Your task to perform on an android device: empty trash in the gmail app Image 0: 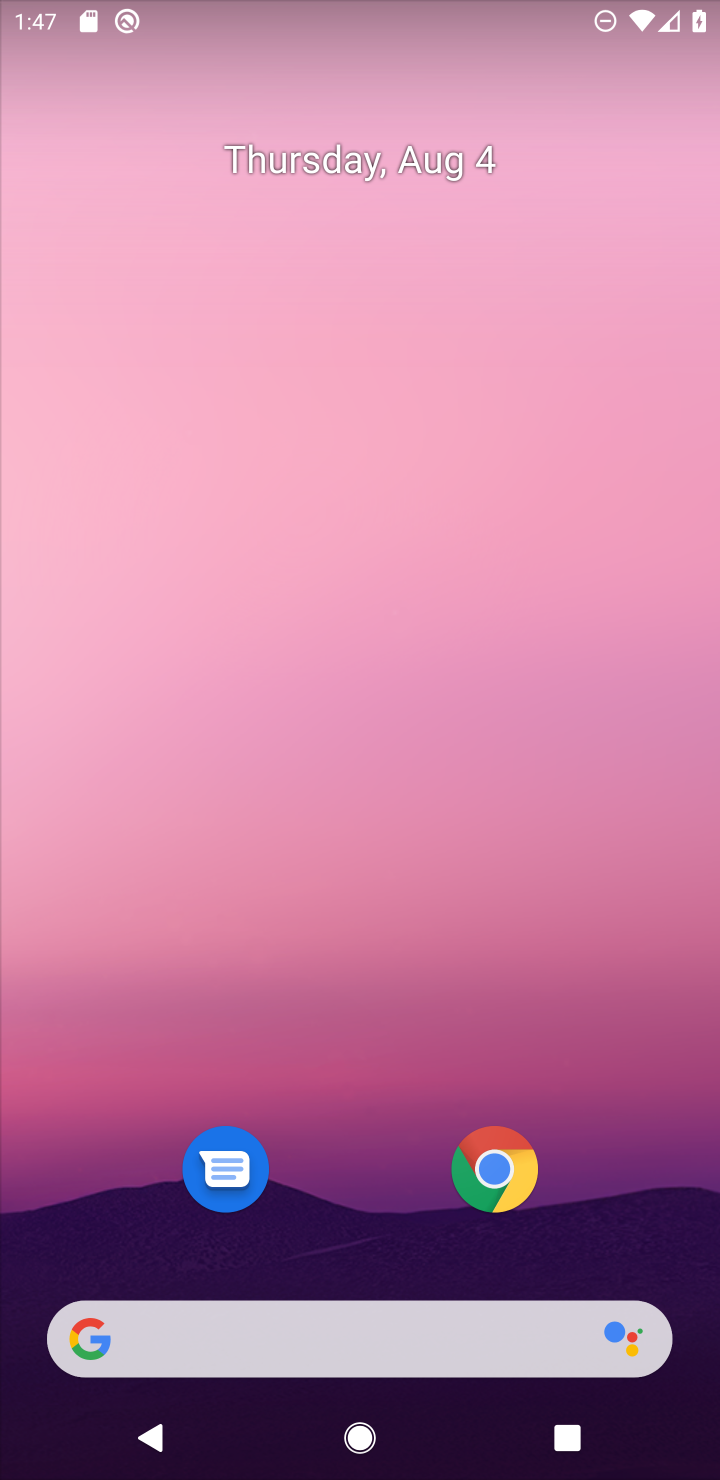
Step 0: drag from (382, 1123) to (370, 44)
Your task to perform on an android device: empty trash in the gmail app Image 1: 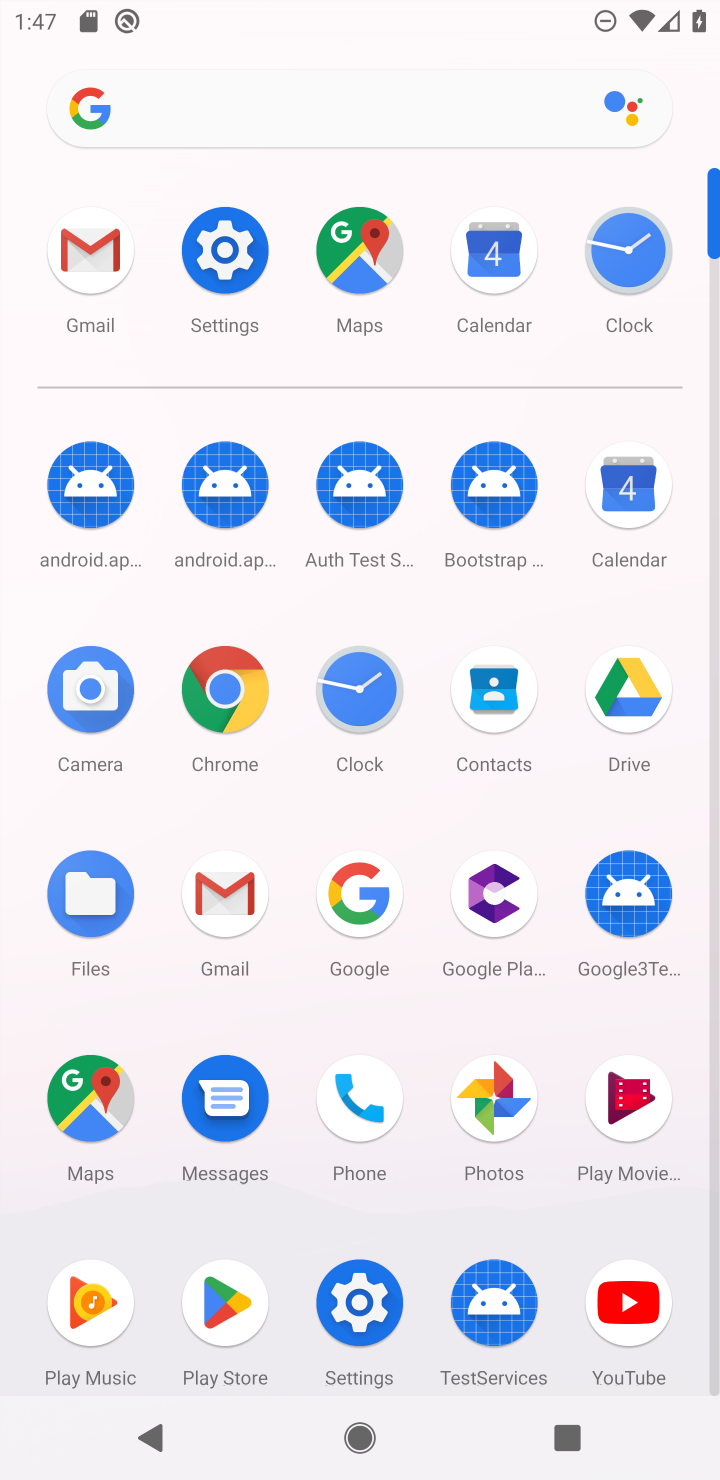
Step 1: click (90, 263)
Your task to perform on an android device: empty trash in the gmail app Image 2: 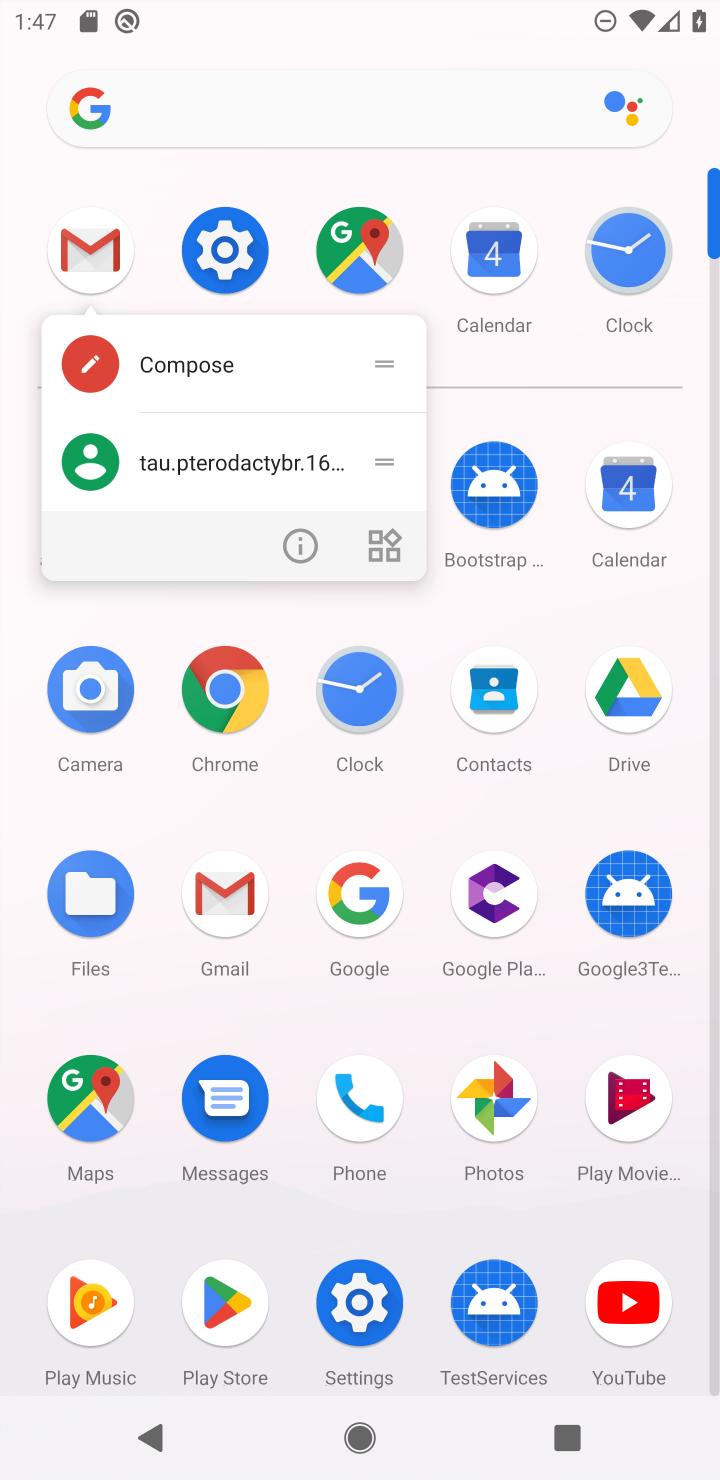
Step 2: click (90, 263)
Your task to perform on an android device: empty trash in the gmail app Image 3: 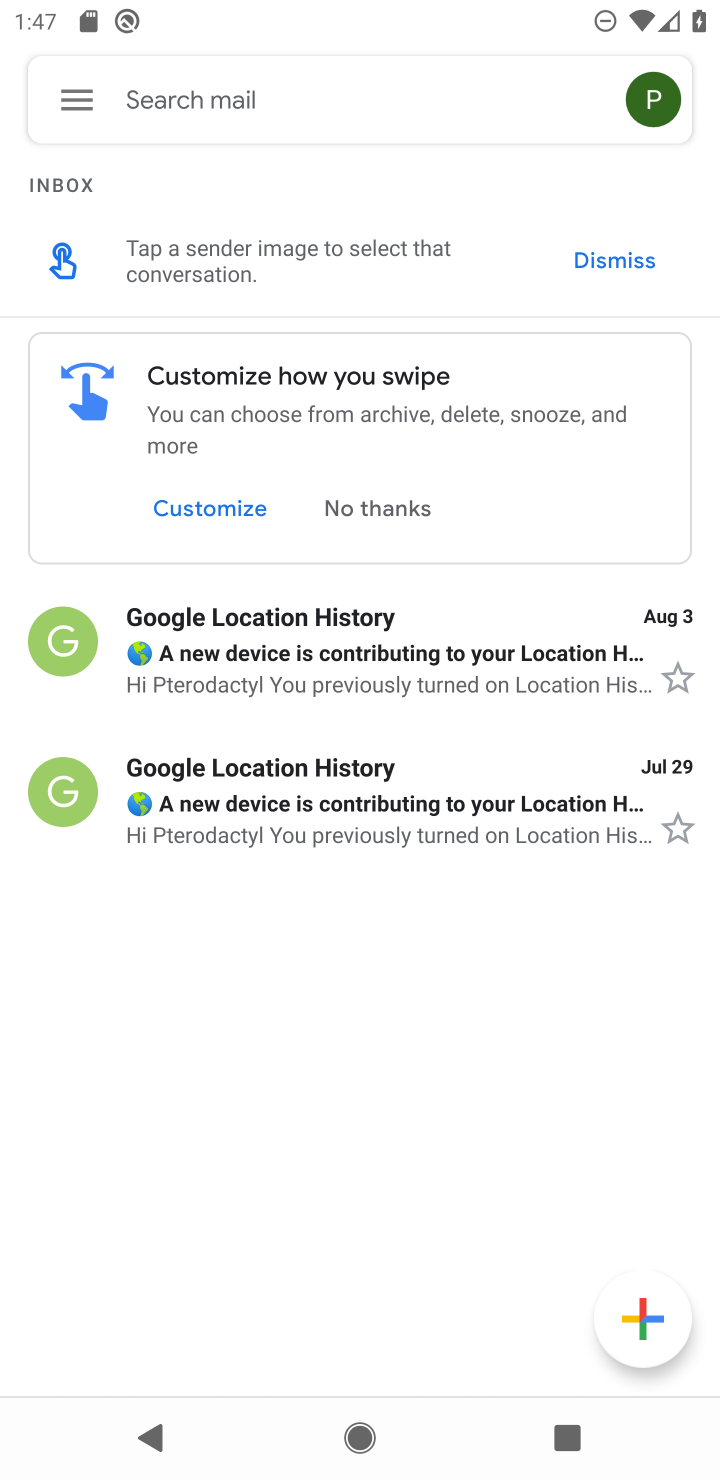
Step 3: click (76, 102)
Your task to perform on an android device: empty trash in the gmail app Image 4: 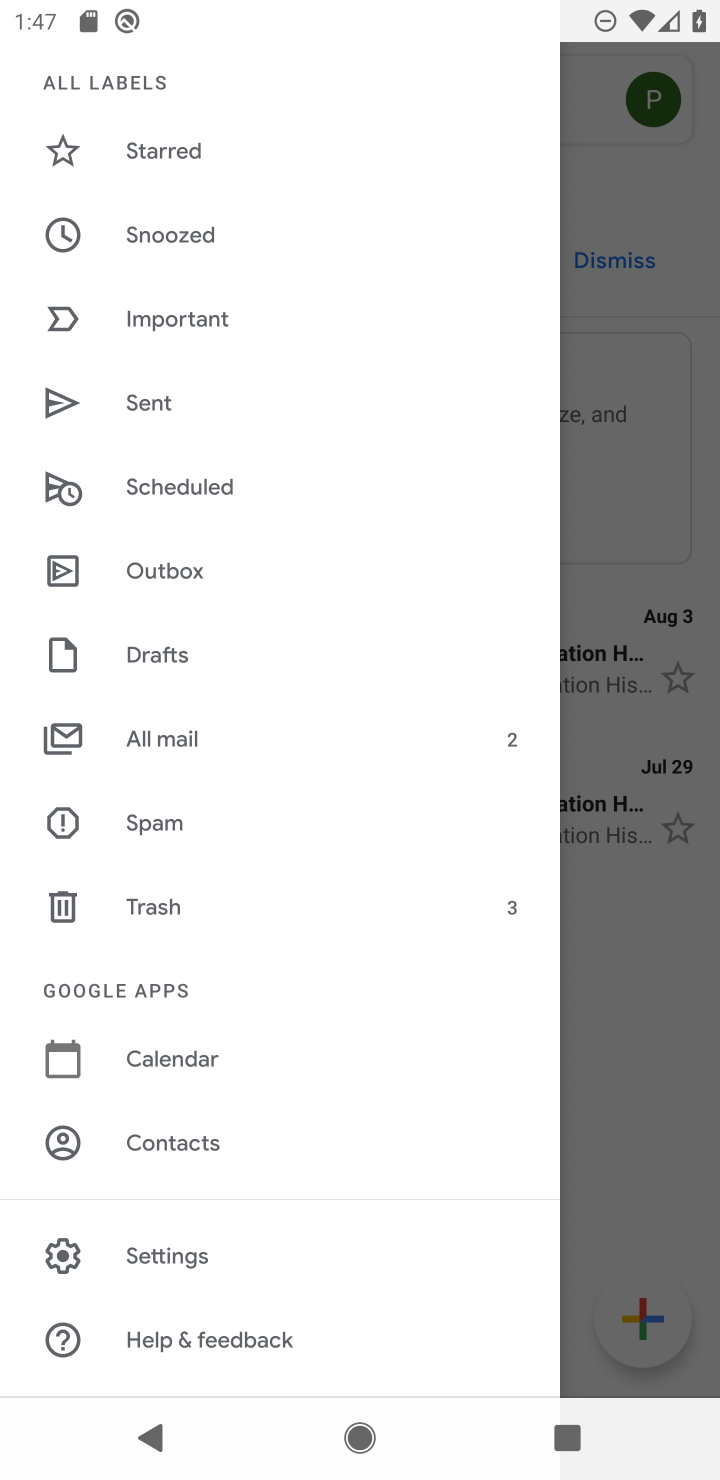
Step 4: click (150, 920)
Your task to perform on an android device: empty trash in the gmail app Image 5: 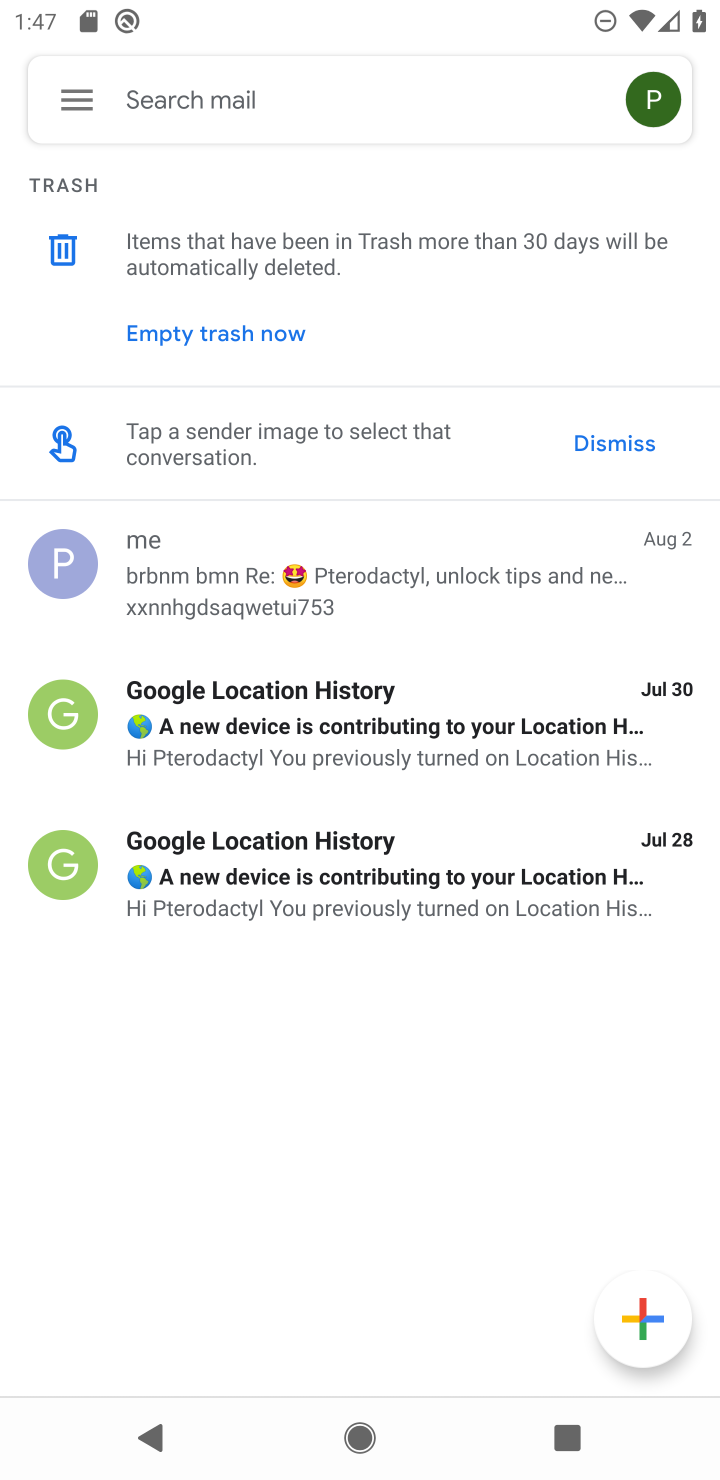
Step 5: click (208, 333)
Your task to perform on an android device: empty trash in the gmail app Image 6: 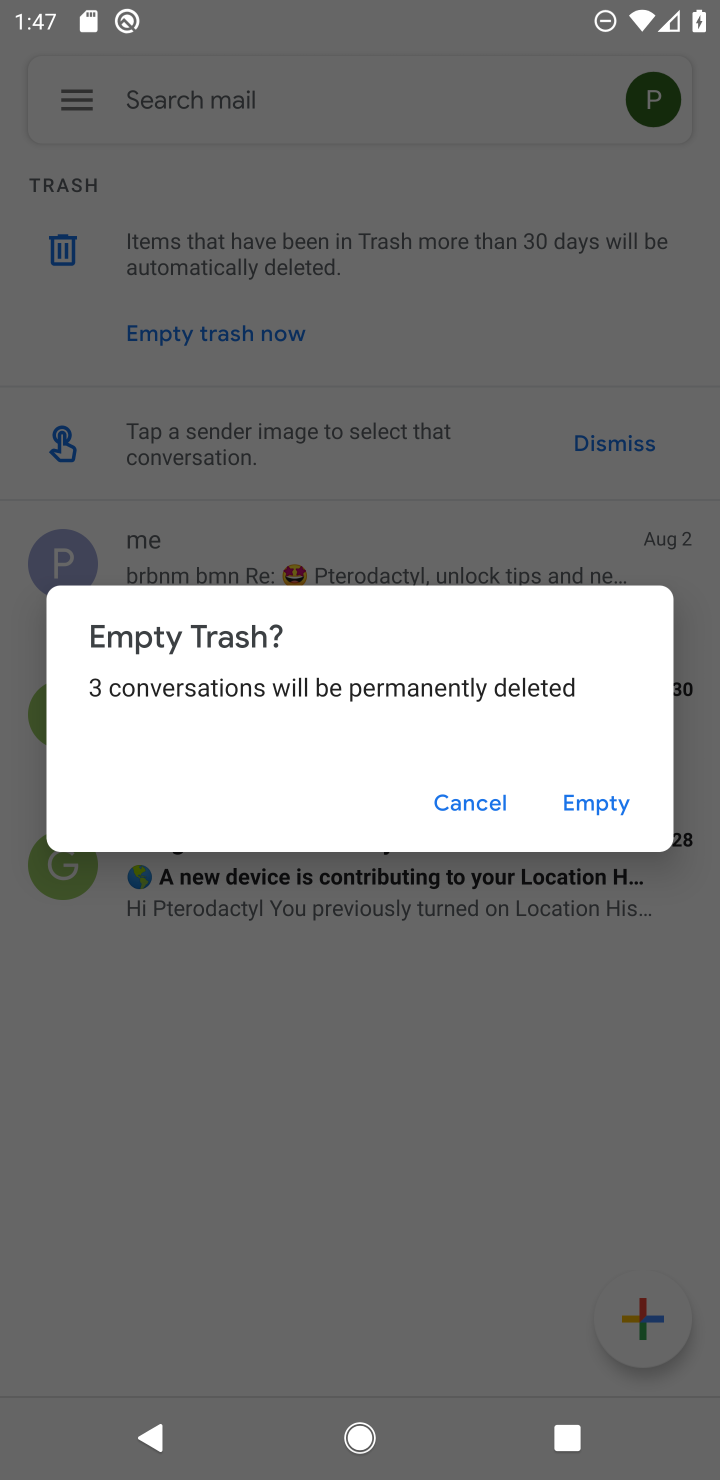
Step 6: click (592, 811)
Your task to perform on an android device: empty trash in the gmail app Image 7: 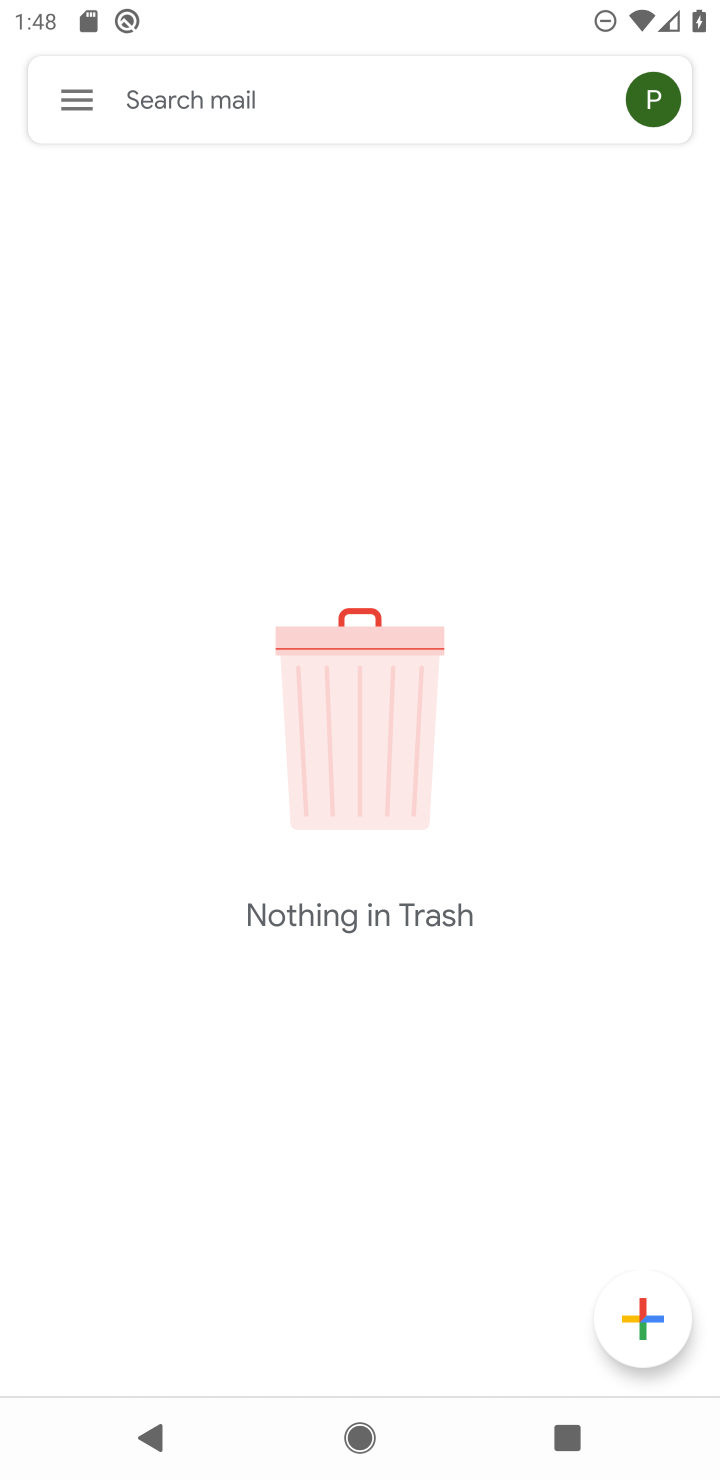
Step 7: task complete